Your task to perform on an android device: What is the recent news? Image 0: 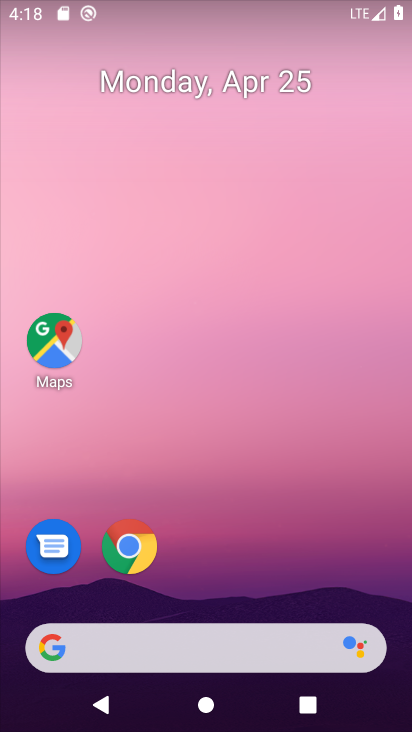
Step 0: drag from (264, 366) to (309, 65)
Your task to perform on an android device: What is the recent news? Image 1: 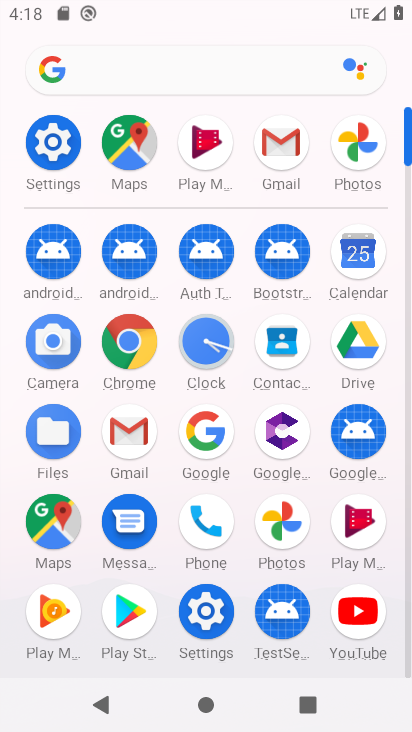
Step 1: click (179, 77)
Your task to perform on an android device: What is the recent news? Image 2: 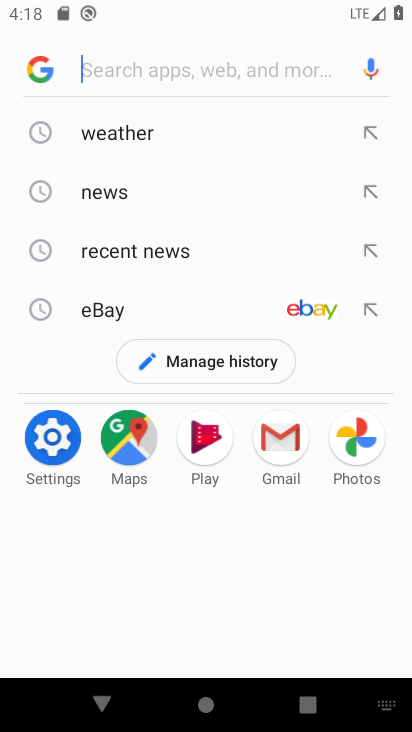
Step 2: type "what is the recent news"
Your task to perform on an android device: What is the recent news? Image 3: 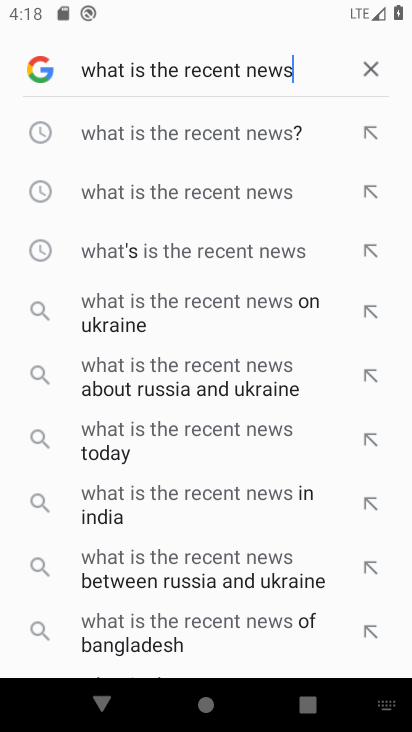
Step 3: click (225, 143)
Your task to perform on an android device: What is the recent news? Image 4: 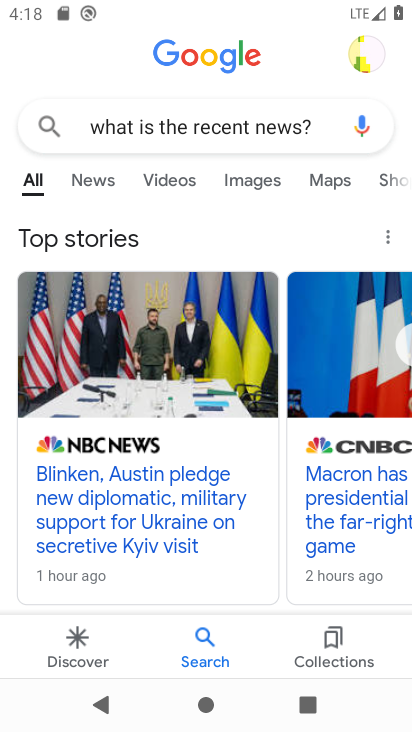
Step 4: click (107, 186)
Your task to perform on an android device: What is the recent news? Image 5: 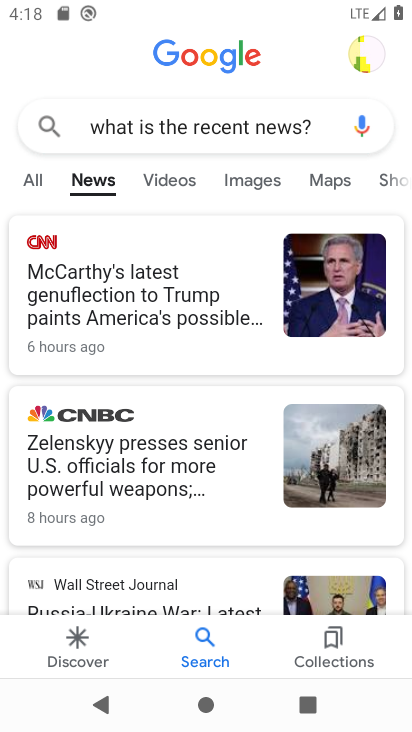
Step 5: task complete